Your task to perform on an android device: find photos in the google photos app Image 0: 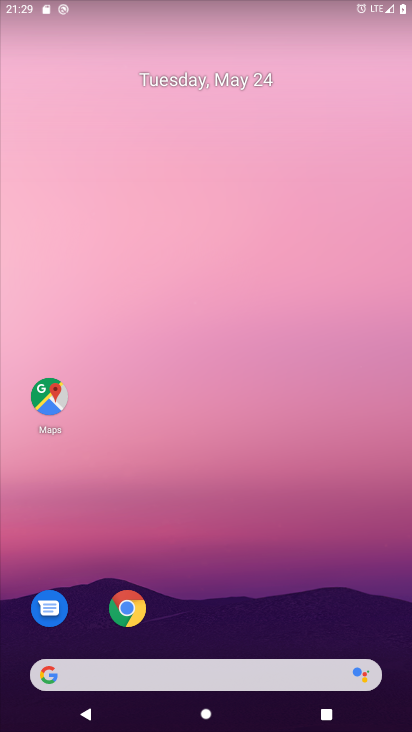
Step 0: drag from (200, 641) to (248, 14)
Your task to perform on an android device: find photos in the google photos app Image 1: 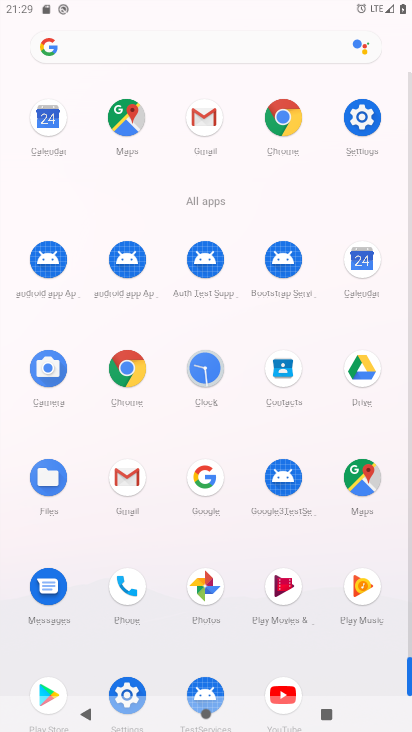
Step 1: click (209, 600)
Your task to perform on an android device: find photos in the google photos app Image 2: 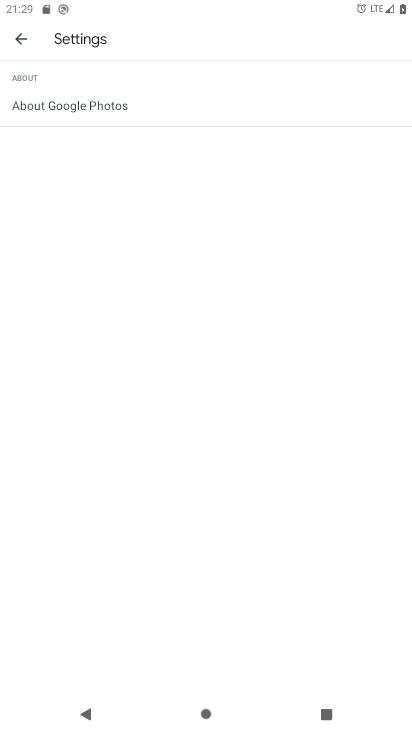
Step 2: click (27, 41)
Your task to perform on an android device: find photos in the google photos app Image 3: 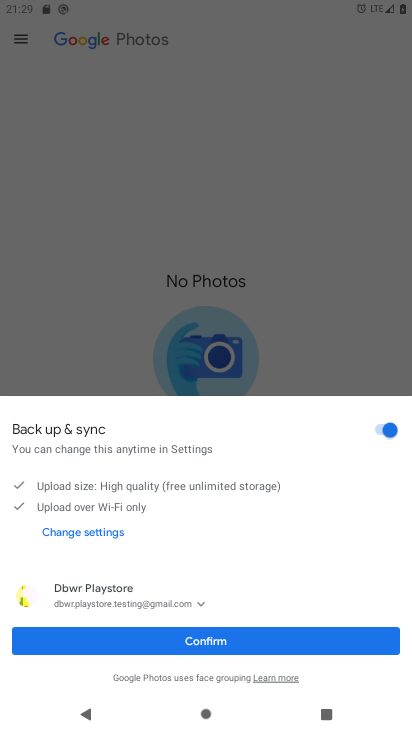
Step 3: click (207, 654)
Your task to perform on an android device: find photos in the google photos app Image 4: 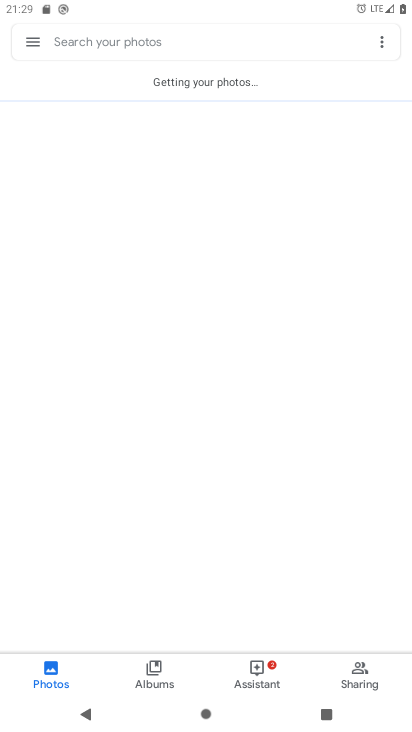
Step 4: task complete